Your task to perform on an android device: set the stopwatch Image 0: 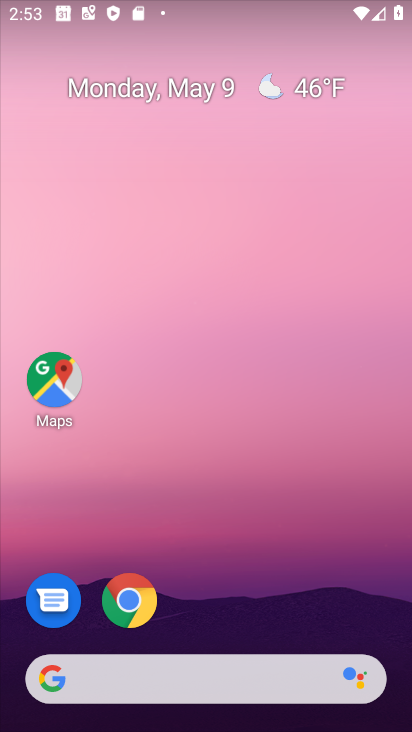
Step 0: drag from (210, 592) to (305, 108)
Your task to perform on an android device: set the stopwatch Image 1: 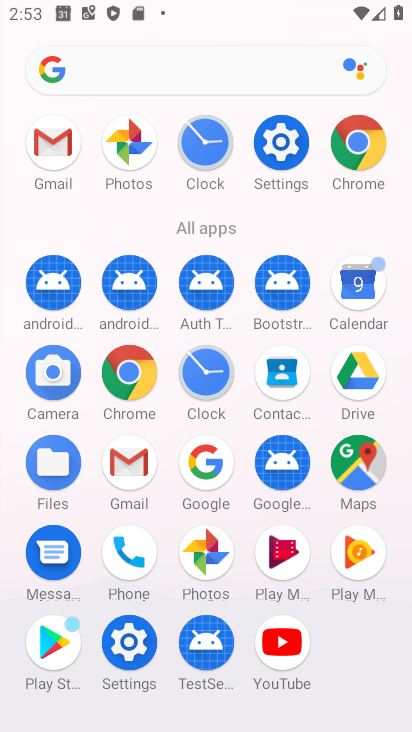
Step 1: click (208, 373)
Your task to perform on an android device: set the stopwatch Image 2: 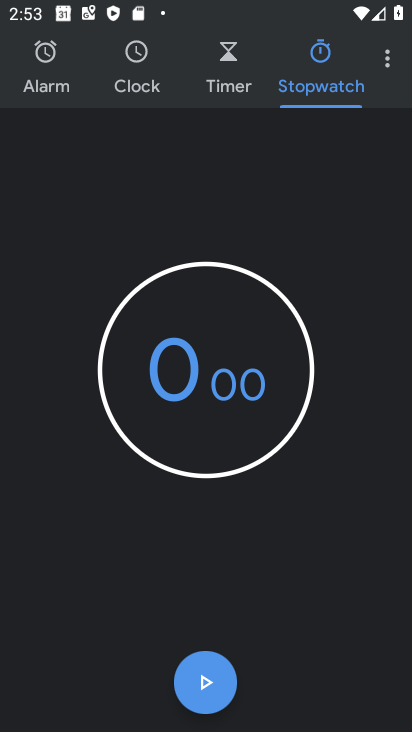
Step 2: click (206, 371)
Your task to perform on an android device: set the stopwatch Image 3: 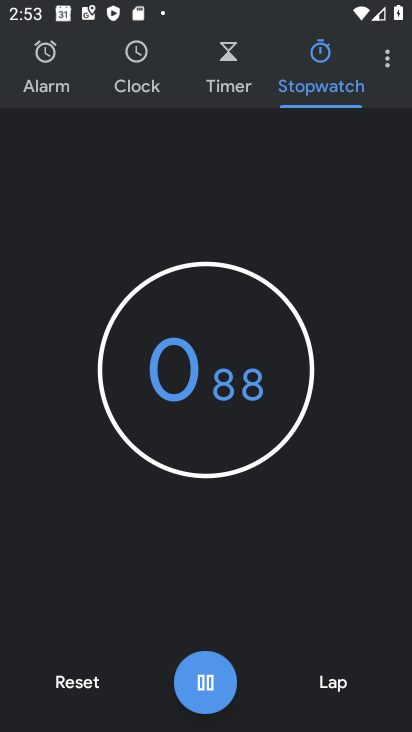
Step 3: click (206, 371)
Your task to perform on an android device: set the stopwatch Image 4: 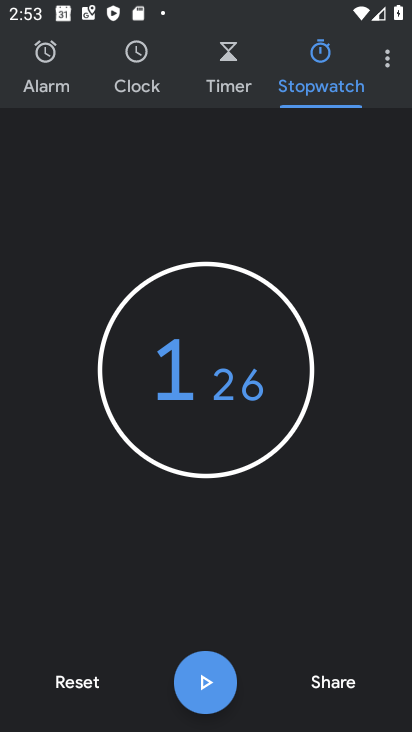
Step 4: task complete